Your task to perform on an android device: Show me popular games on the Play Store Image 0: 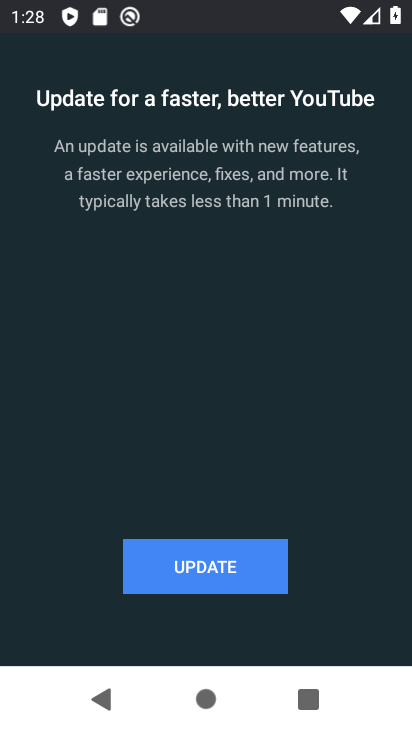
Step 0: task impossible